Your task to perform on an android device: Go to Maps Image 0: 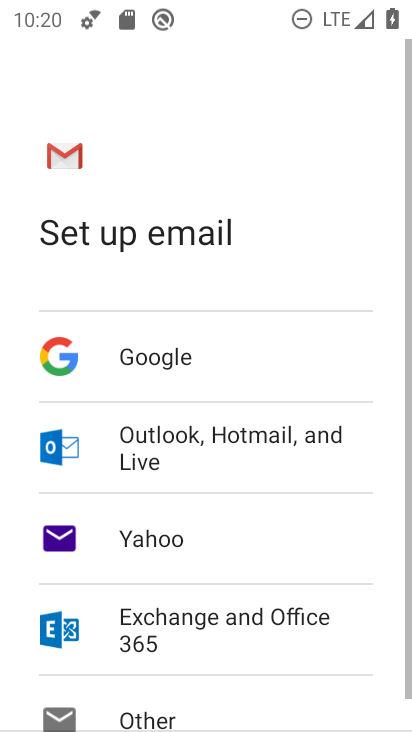
Step 0: press home button
Your task to perform on an android device: Go to Maps Image 1: 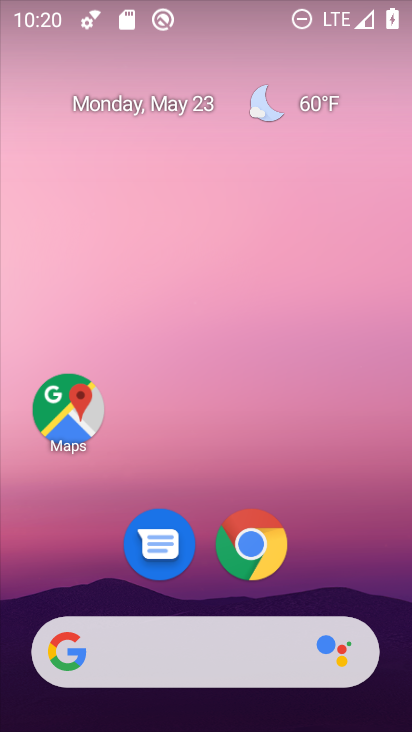
Step 1: click (83, 416)
Your task to perform on an android device: Go to Maps Image 2: 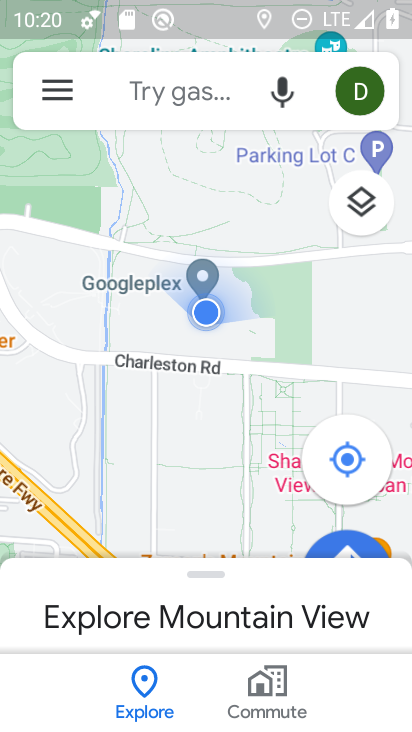
Step 2: task complete